Your task to perform on an android device: When is my next meeting? Image 0: 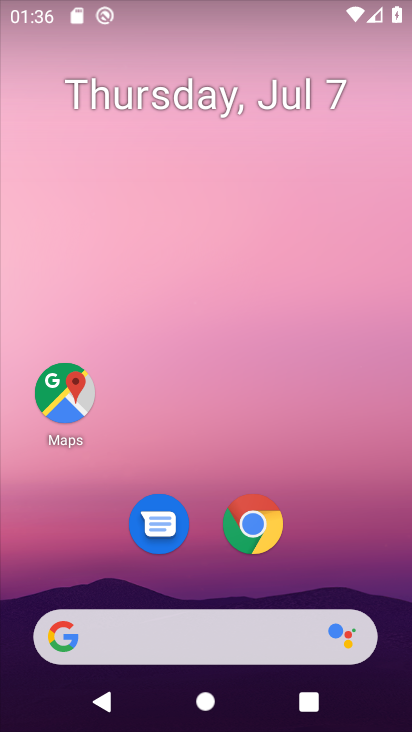
Step 0: drag from (332, 527) to (249, 38)
Your task to perform on an android device: When is my next meeting? Image 1: 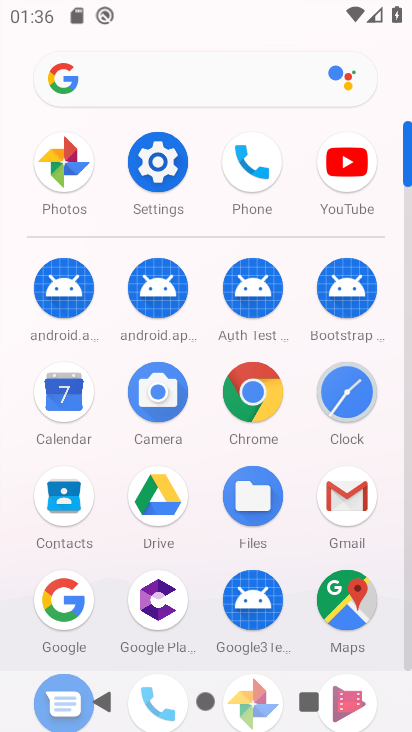
Step 1: click (69, 405)
Your task to perform on an android device: When is my next meeting? Image 2: 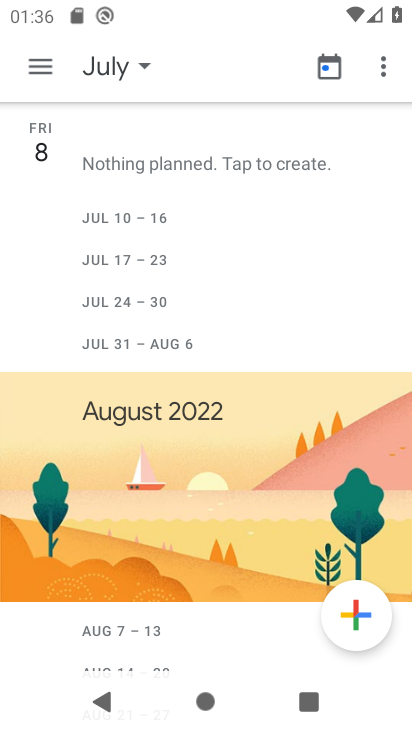
Step 2: click (45, 137)
Your task to perform on an android device: When is my next meeting? Image 3: 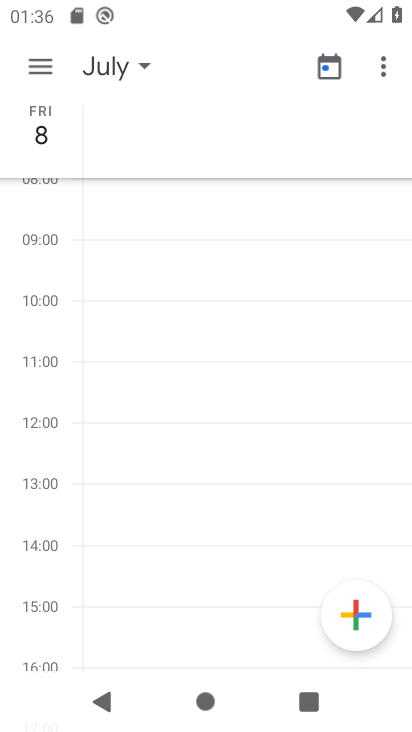
Step 3: drag from (125, 239) to (180, 558)
Your task to perform on an android device: When is my next meeting? Image 4: 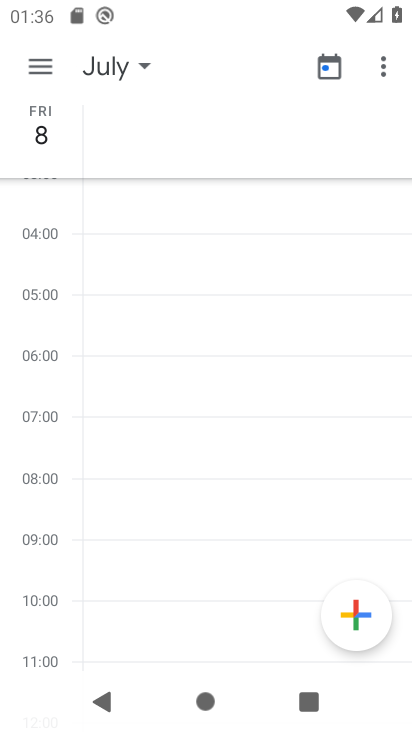
Step 4: click (39, 62)
Your task to perform on an android device: When is my next meeting? Image 5: 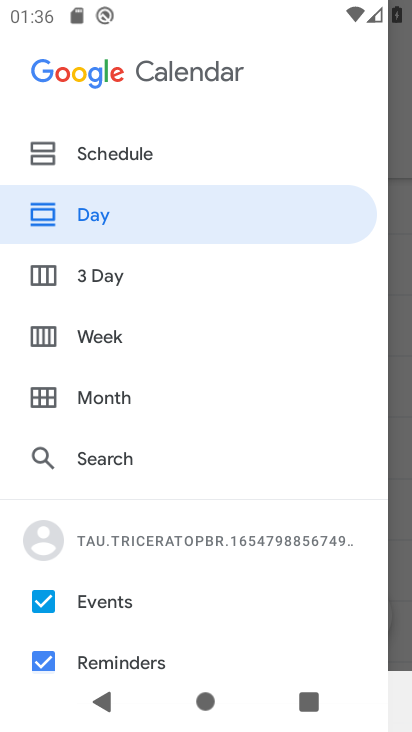
Step 5: click (48, 274)
Your task to perform on an android device: When is my next meeting? Image 6: 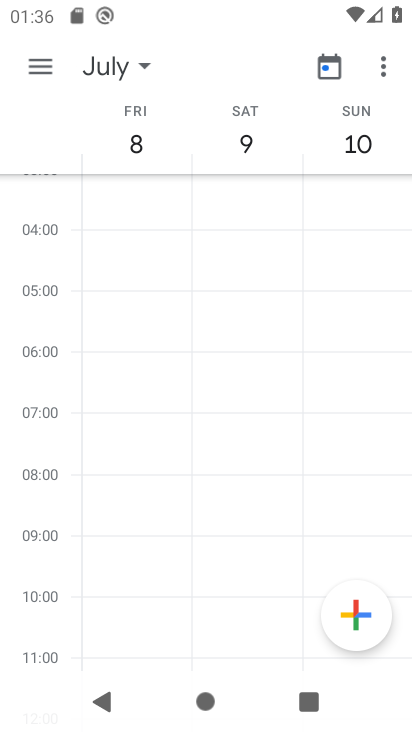
Step 6: drag from (177, 140) to (347, 121)
Your task to perform on an android device: When is my next meeting? Image 7: 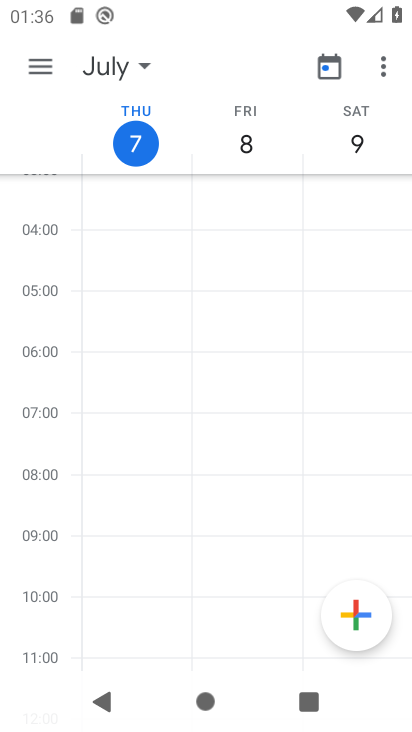
Step 7: click (140, 139)
Your task to perform on an android device: When is my next meeting? Image 8: 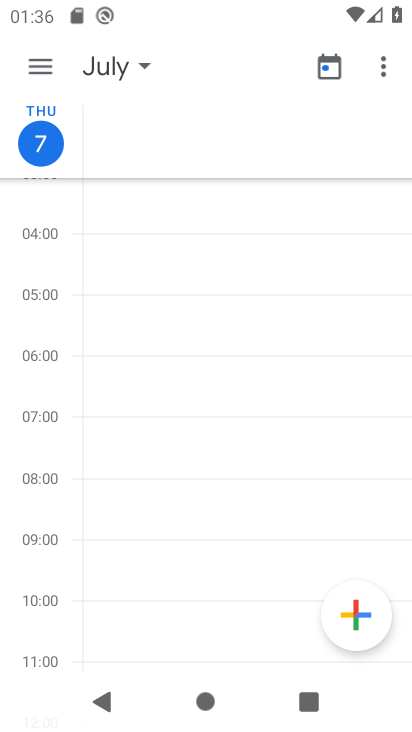
Step 8: click (47, 71)
Your task to perform on an android device: When is my next meeting? Image 9: 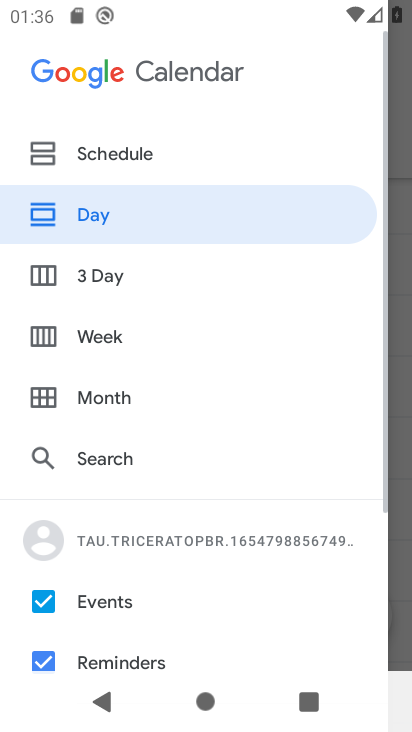
Step 9: click (123, 162)
Your task to perform on an android device: When is my next meeting? Image 10: 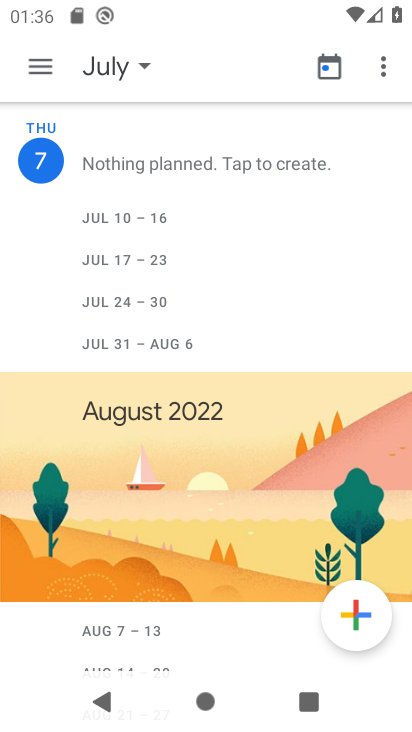
Step 10: task complete